Your task to perform on an android device: Is it going to rain this weekend? Image 0: 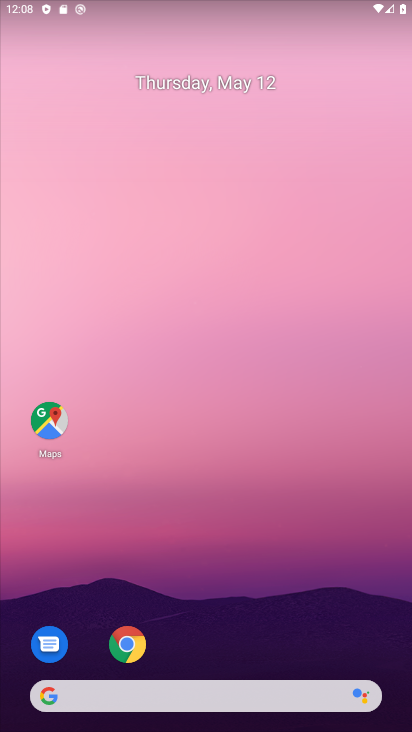
Step 0: drag from (281, 362) to (279, 57)
Your task to perform on an android device: Is it going to rain this weekend? Image 1: 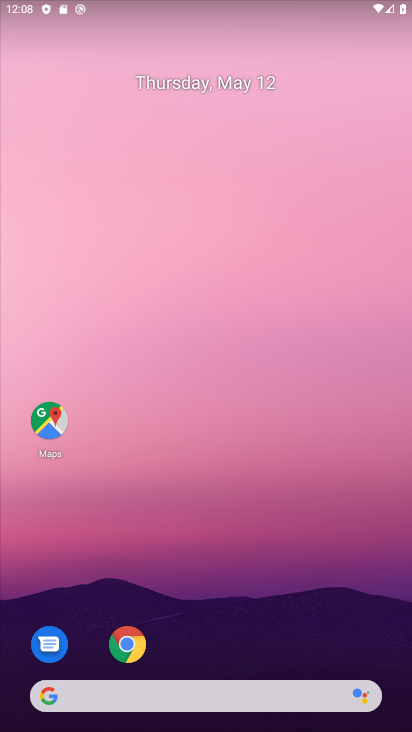
Step 1: drag from (214, 605) to (159, 21)
Your task to perform on an android device: Is it going to rain this weekend? Image 2: 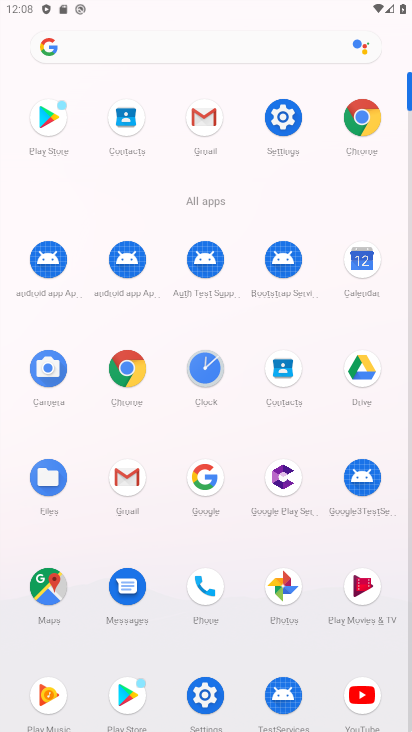
Step 2: click (214, 474)
Your task to perform on an android device: Is it going to rain this weekend? Image 3: 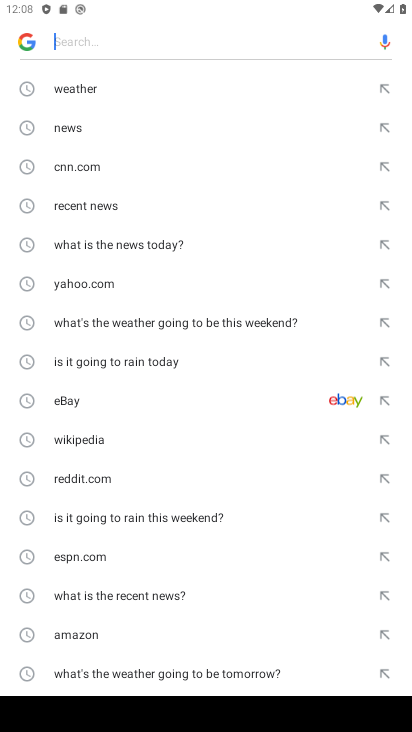
Step 3: click (182, 513)
Your task to perform on an android device: Is it going to rain this weekend? Image 4: 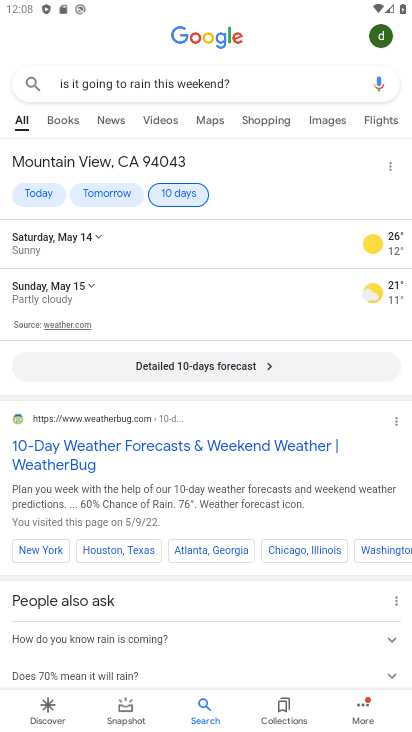
Step 4: click (194, 367)
Your task to perform on an android device: Is it going to rain this weekend? Image 5: 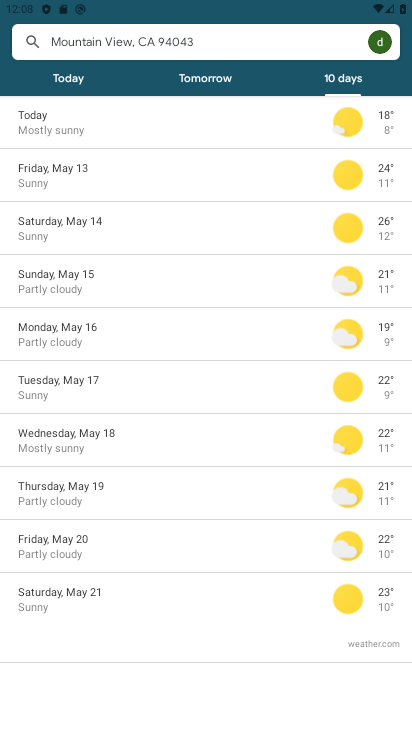
Step 5: task complete